Your task to perform on an android device: Open display settings Image 0: 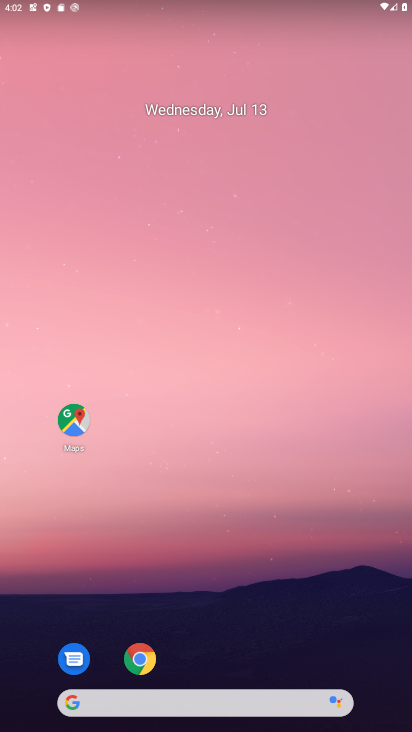
Step 0: press home button
Your task to perform on an android device: Open display settings Image 1: 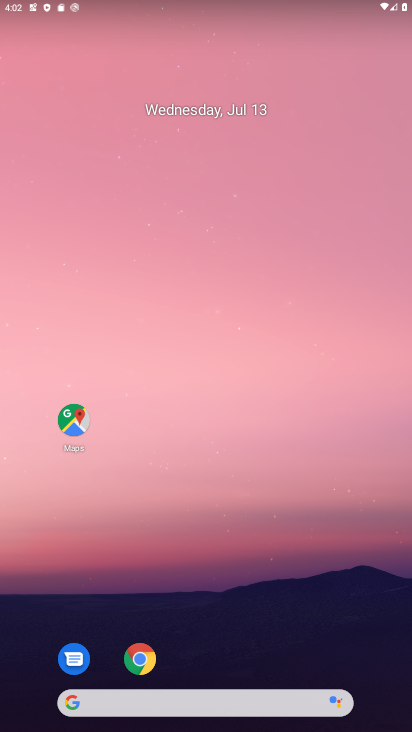
Step 1: drag from (212, 665) to (285, 19)
Your task to perform on an android device: Open display settings Image 2: 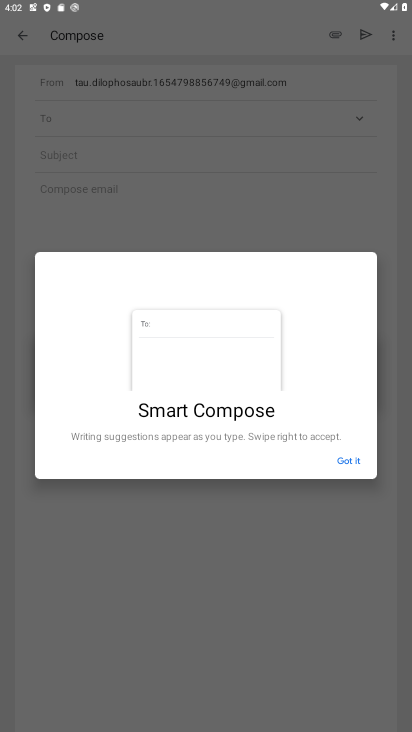
Step 2: click (51, 97)
Your task to perform on an android device: Open display settings Image 3: 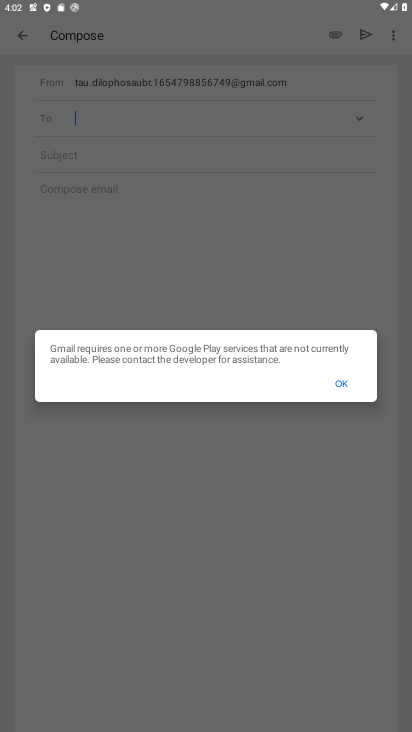
Step 3: press home button
Your task to perform on an android device: Open display settings Image 4: 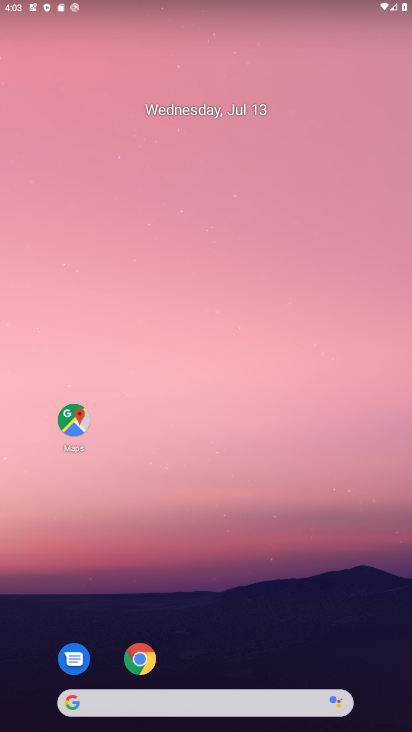
Step 4: drag from (237, 661) to (242, 105)
Your task to perform on an android device: Open display settings Image 5: 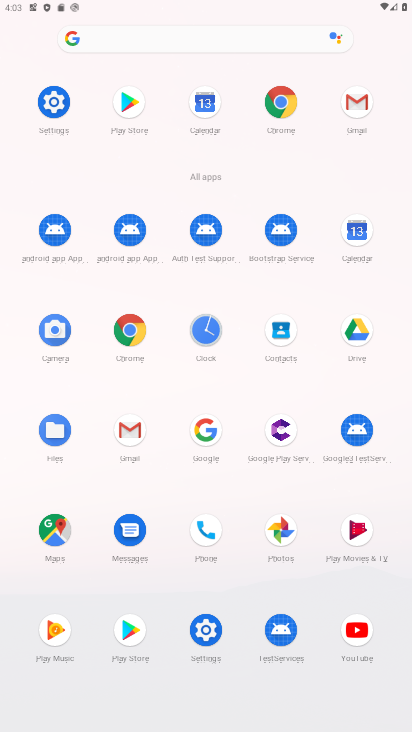
Step 5: click (51, 96)
Your task to perform on an android device: Open display settings Image 6: 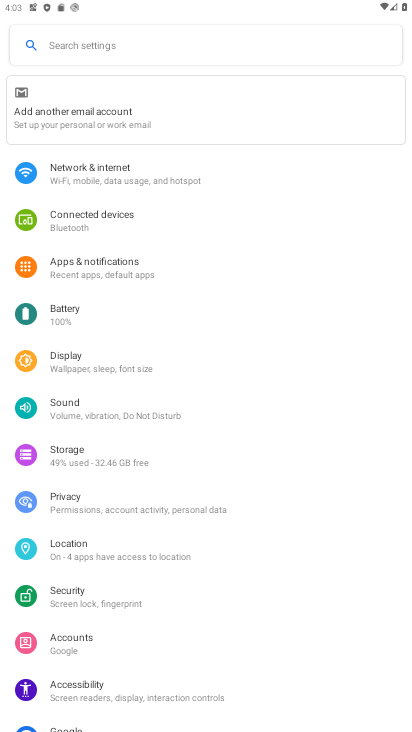
Step 6: click (89, 360)
Your task to perform on an android device: Open display settings Image 7: 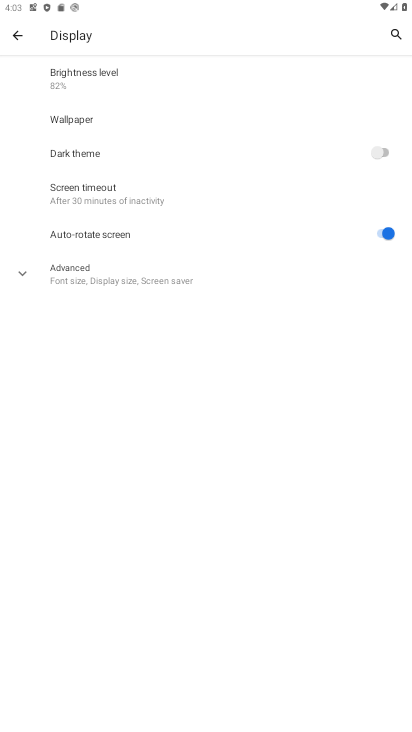
Step 7: click (24, 269)
Your task to perform on an android device: Open display settings Image 8: 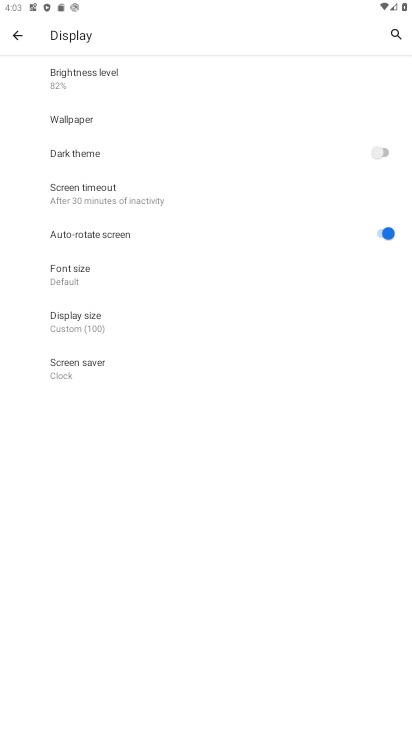
Step 8: task complete